Your task to perform on an android device: toggle data saver in the chrome app Image 0: 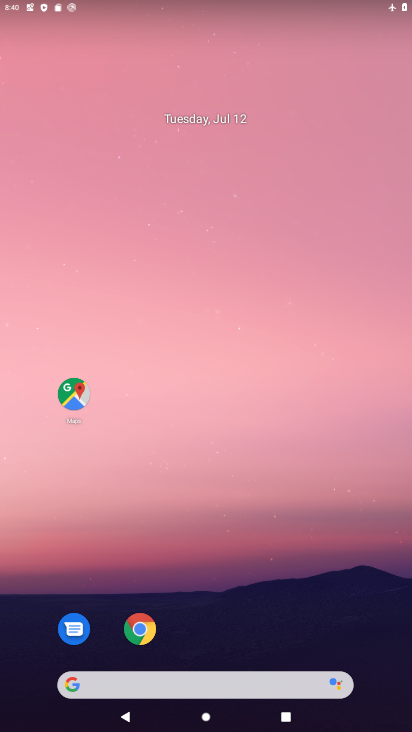
Step 0: drag from (212, 606) to (242, 159)
Your task to perform on an android device: toggle data saver in the chrome app Image 1: 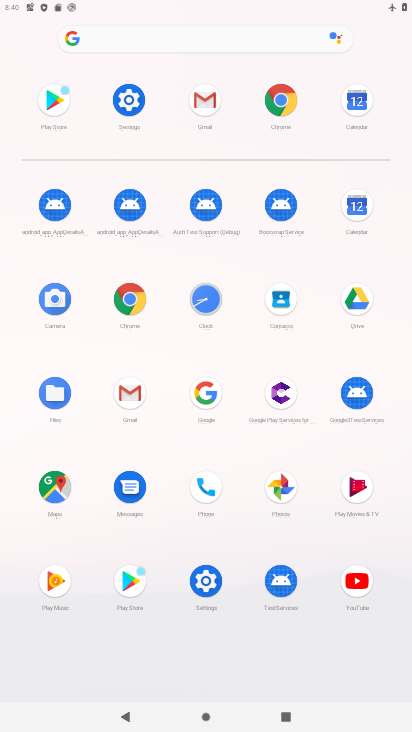
Step 1: click (274, 100)
Your task to perform on an android device: toggle data saver in the chrome app Image 2: 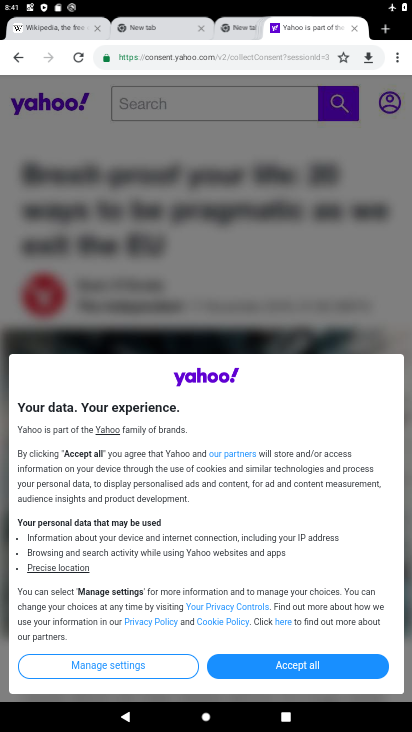
Step 2: click (394, 42)
Your task to perform on an android device: toggle data saver in the chrome app Image 3: 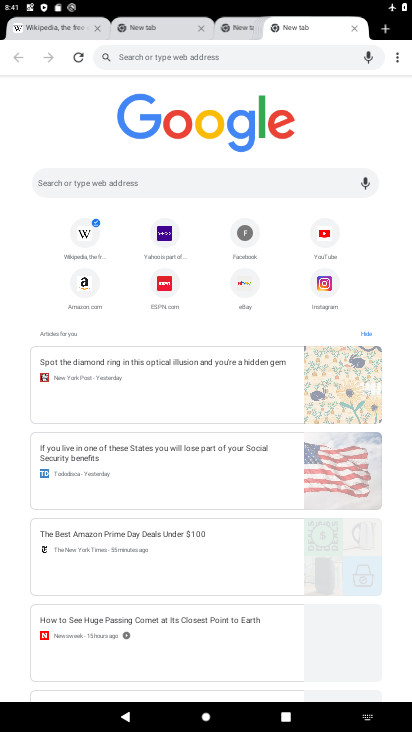
Step 3: click (400, 51)
Your task to perform on an android device: toggle data saver in the chrome app Image 4: 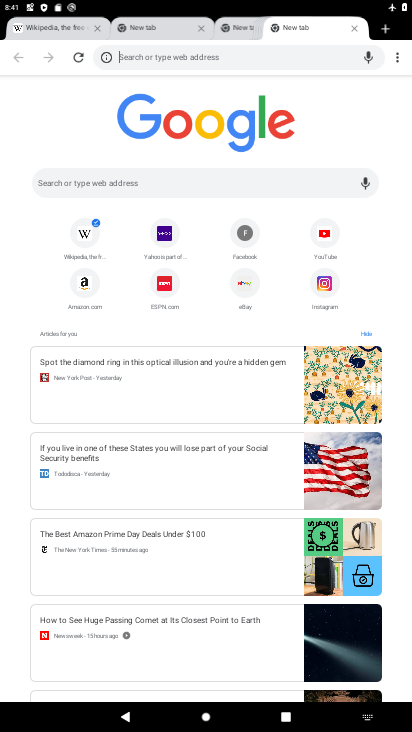
Step 4: click (394, 50)
Your task to perform on an android device: toggle data saver in the chrome app Image 5: 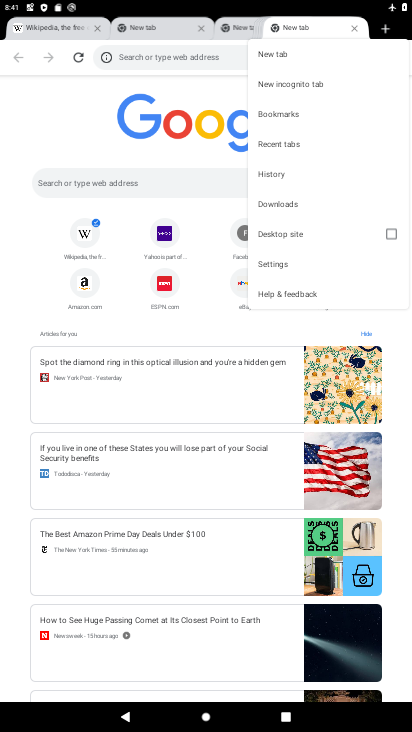
Step 5: click (275, 257)
Your task to perform on an android device: toggle data saver in the chrome app Image 6: 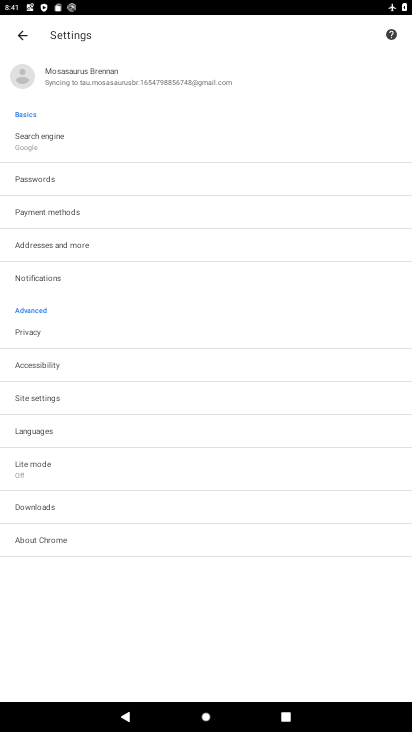
Step 6: click (63, 459)
Your task to perform on an android device: toggle data saver in the chrome app Image 7: 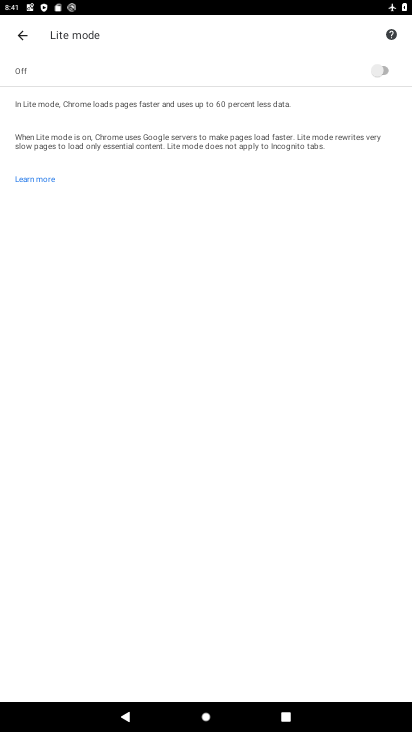
Step 7: click (384, 65)
Your task to perform on an android device: toggle data saver in the chrome app Image 8: 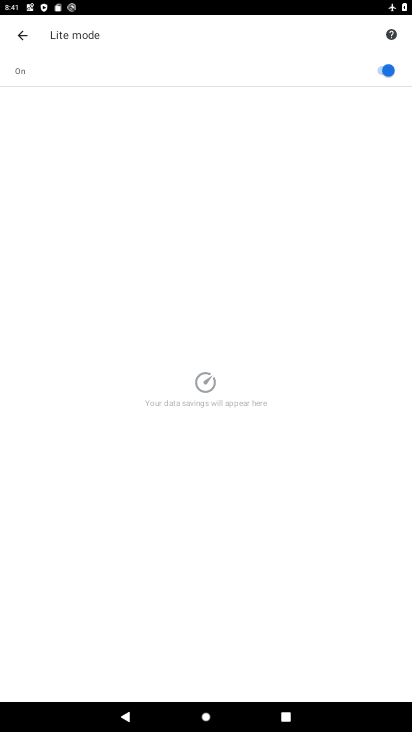
Step 8: task complete